Your task to perform on an android device: Is it going to rain this weekend? Image 0: 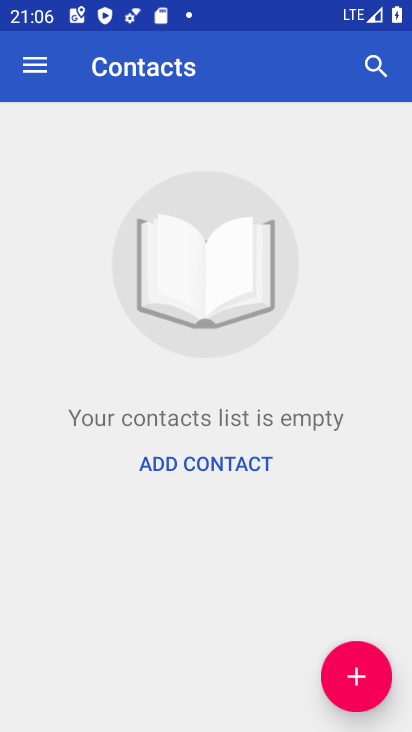
Step 0: press home button
Your task to perform on an android device: Is it going to rain this weekend? Image 1: 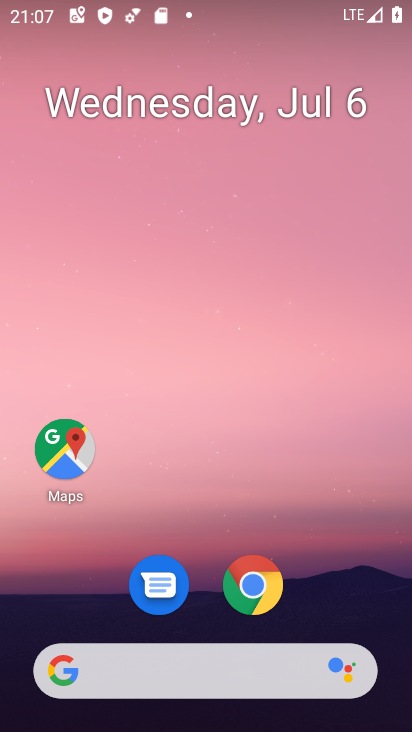
Step 1: click (170, 675)
Your task to perform on an android device: Is it going to rain this weekend? Image 2: 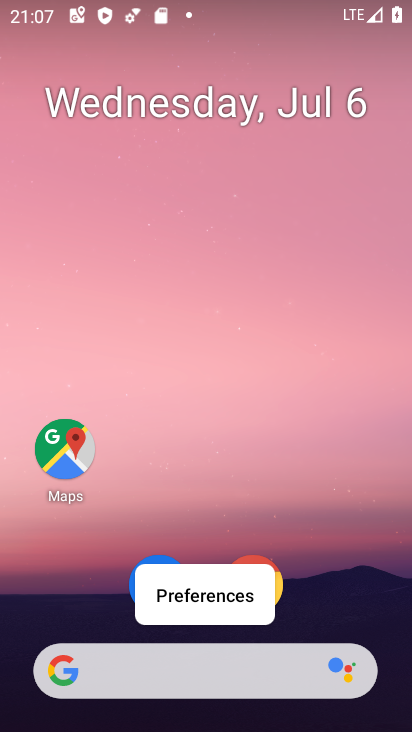
Step 2: drag from (289, 350) to (1, 352)
Your task to perform on an android device: Is it going to rain this weekend? Image 3: 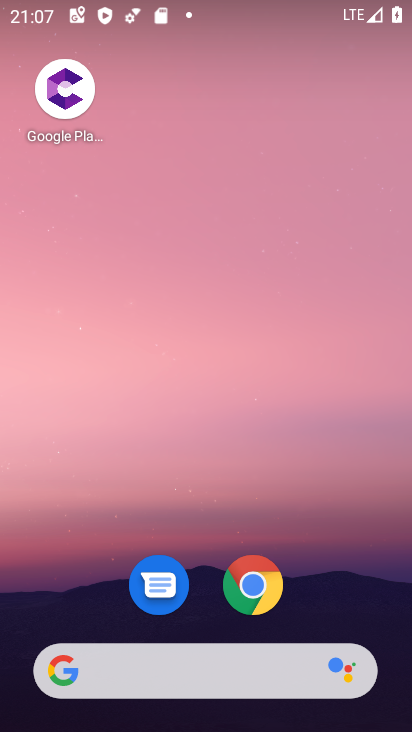
Step 3: drag from (328, 320) to (0, 341)
Your task to perform on an android device: Is it going to rain this weekend? Image 4: 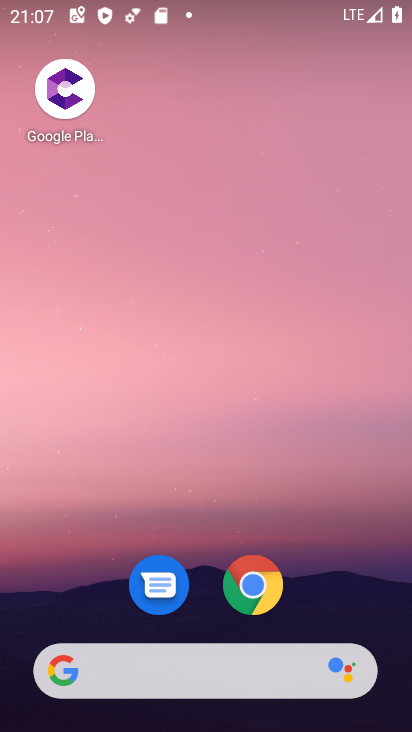
Step 4: click (172, 668)
Your task to perform on an android device: Is it going to rain this weekend? Image 5: 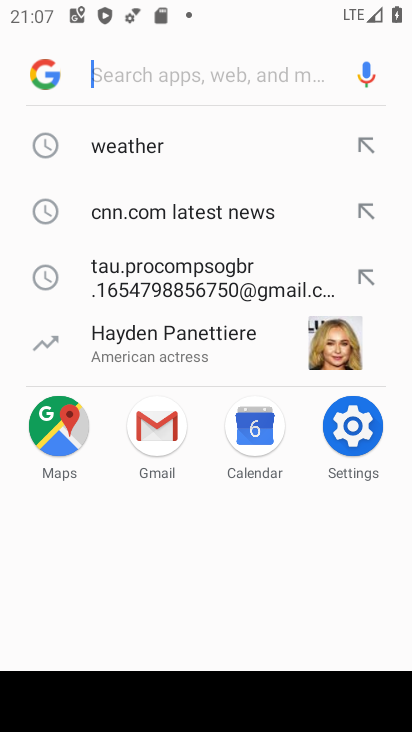
Step 5: click (141, 143)
Your task to perform on an android device: Is it going to rain this weekend? Image 6: 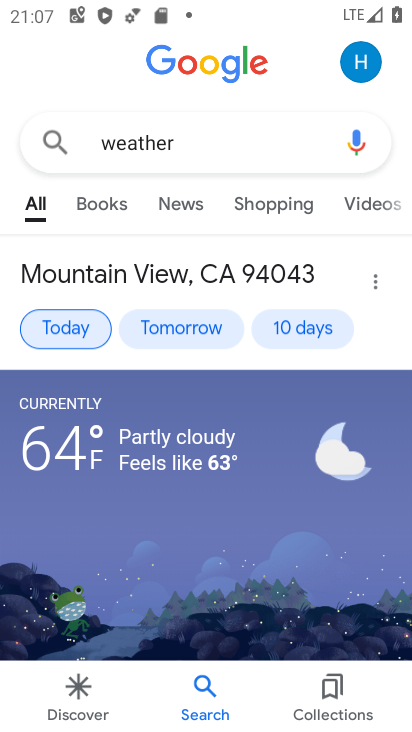
Step 6: click (74, 328)
Your task to perform on an android device: Is it going to rain this weekend? Image 7: 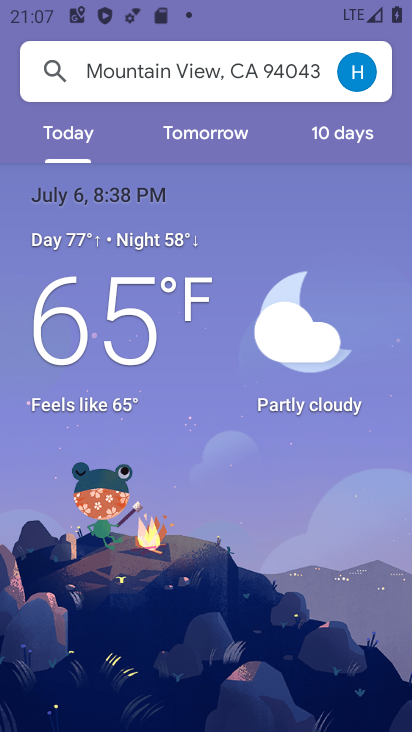
Step 7: click (351, 123)
Your task to perform on an android device: Is it going to rain this weekend? Image 8: 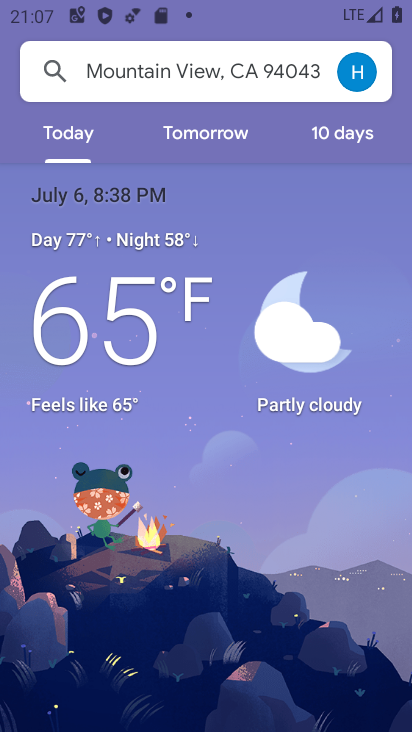
Step 8: click (352, 135)
Your task to perform on an android device: Is it going to rain this weekend? Image 9: 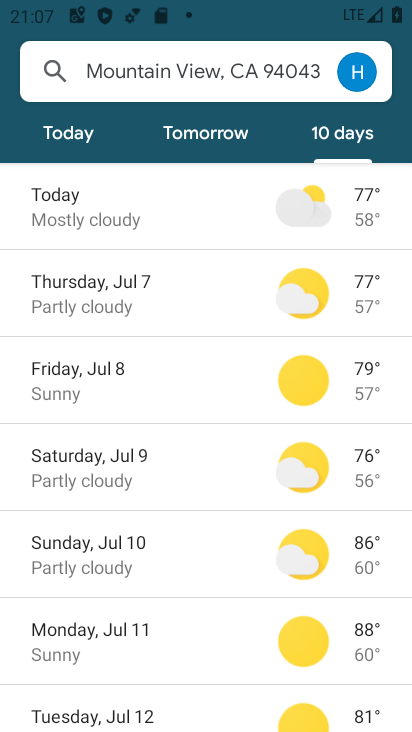
Step 9: click (102, 471)
Your task to perform on an android device: Is it going to rain this weekend? Image 10: 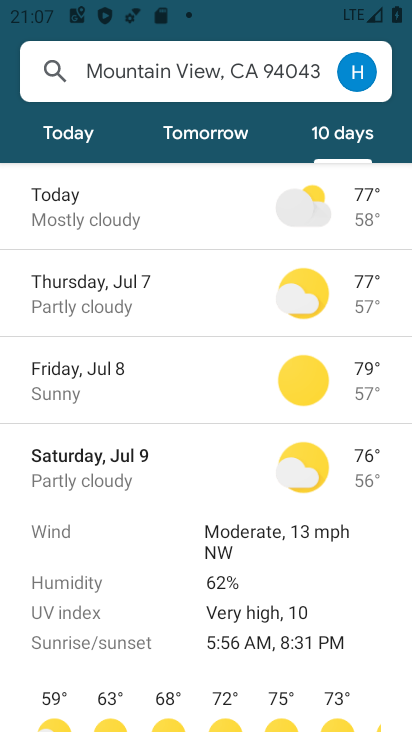
Step 10: task complete